Your task to perform on an android device: Open CNN.com Image 0: 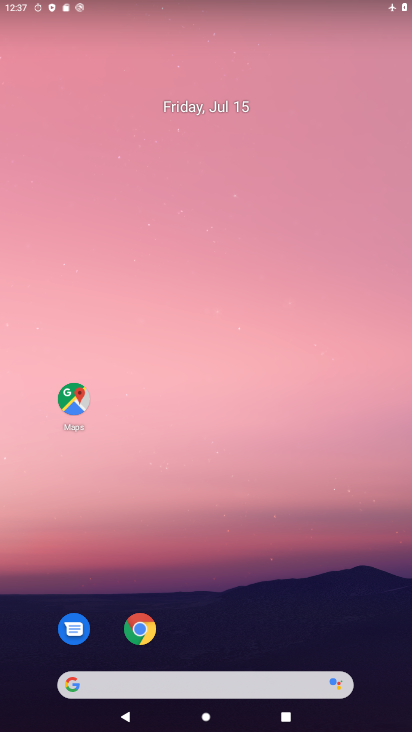
Step 0: click (135, 631)
Your task to perform on an android device: Open CNN.com Image 1: 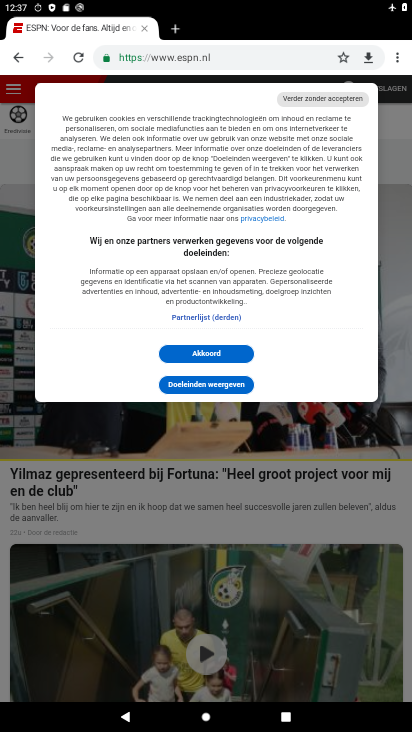
Step 1: click (182, 58)
Your task to perform on an android device: Open CNN.com Image 2: 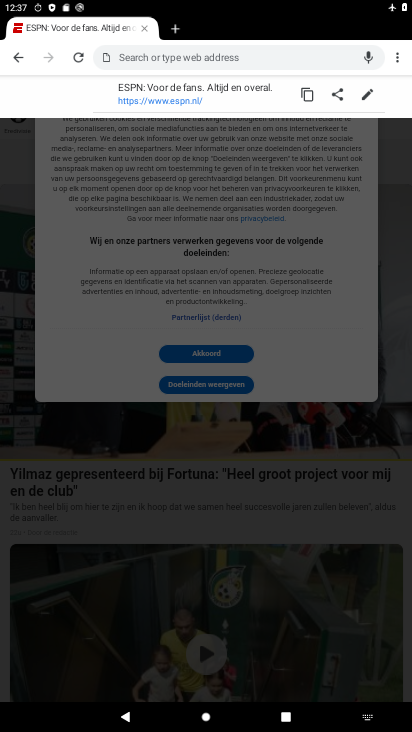
Step 2: type "CNN.com"
Your task to perform on an android device: Open CNN.com Image 3: 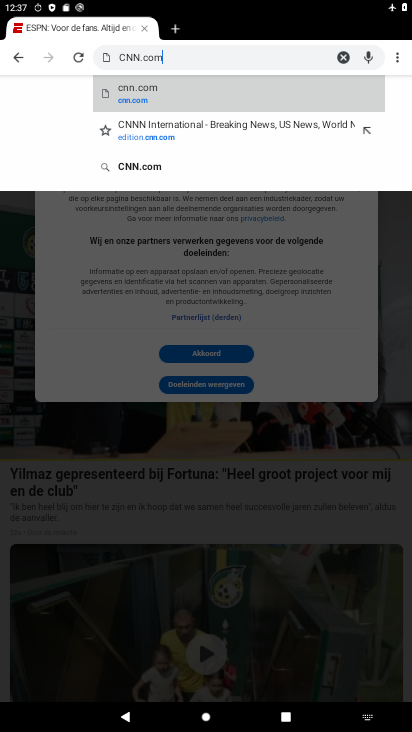
Step 3: click (169, 130)
Your task to perform on an android device: Open CNN.com Image 4: 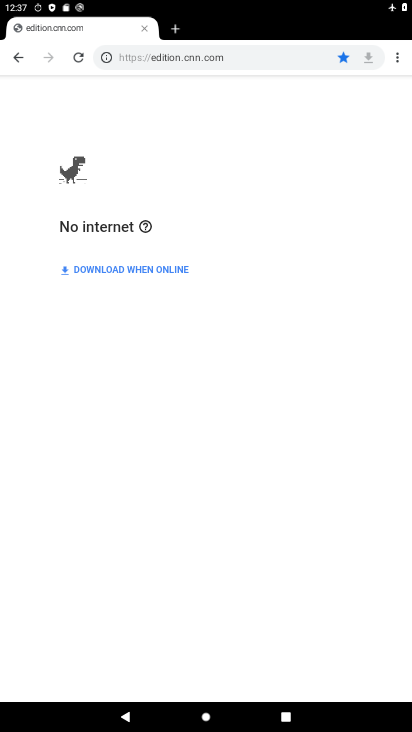
Step 4: task complete